Your task to perform on an android device: change the clock display to show seconds Image 0: 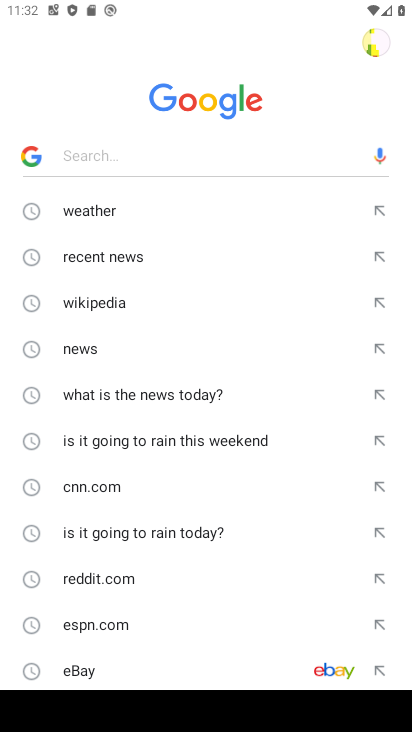
Step 0: press back button
Your task to perform on an android device: change the clock display to show seconds Image 1: 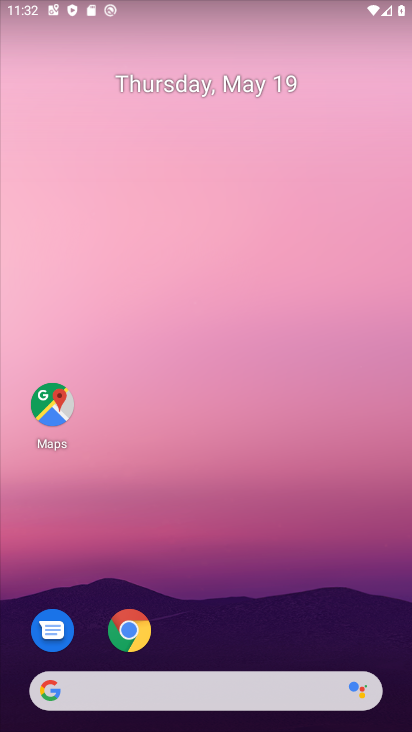
Step 1: drag from (279, 636) to (187, 157)
Your task to perform on an android device: change the clock display to show seconds Image 2: 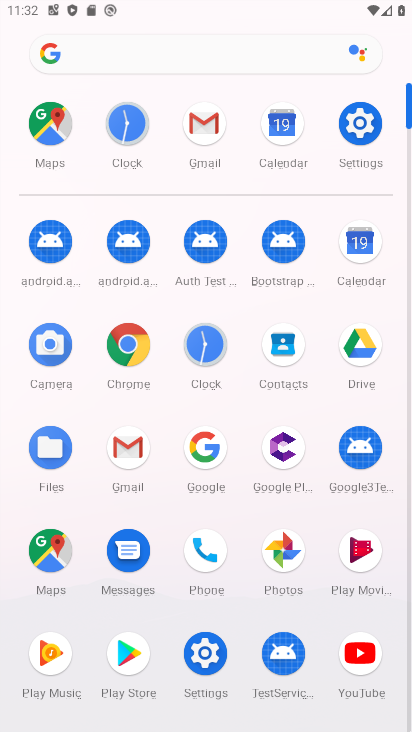
Step 2: click (206, 344)
Your task to perform on an android device: change the clock display to show seconds Image 3: 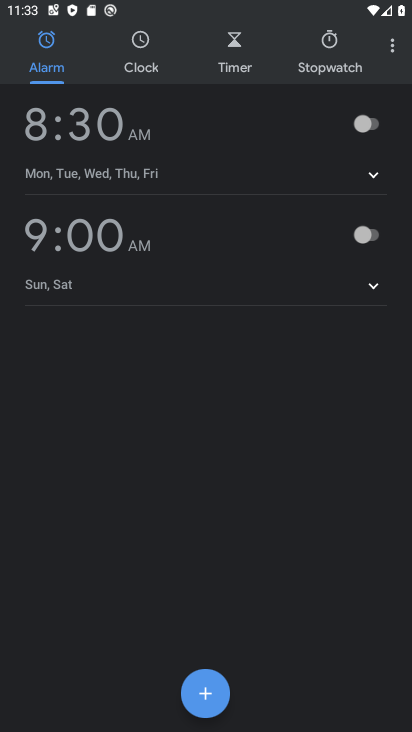
Step 3: click (392, 46)
Your task to perform on an android device: change the clock display to show seconds Image 4: 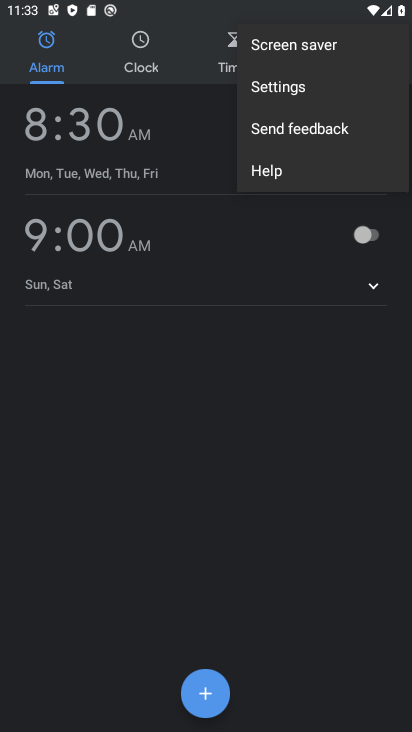
Step 4: click (283, 85)
Your task to perform on an android device: change the clock display to show seconds Image 5: 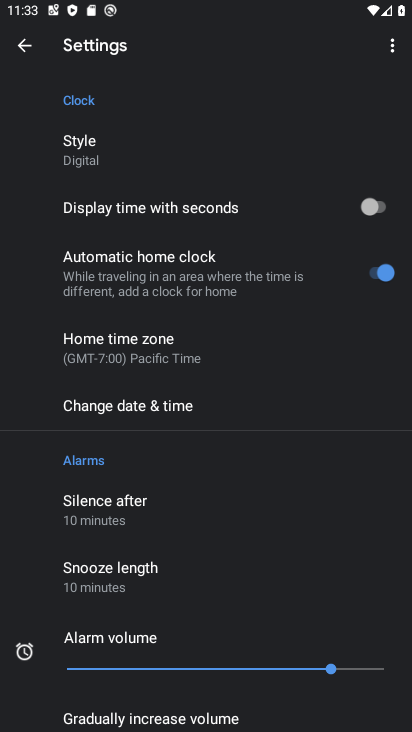
Step 5: click (371, 200)
Your task to perform on an android device: change the clock display to show seconds Image 6: 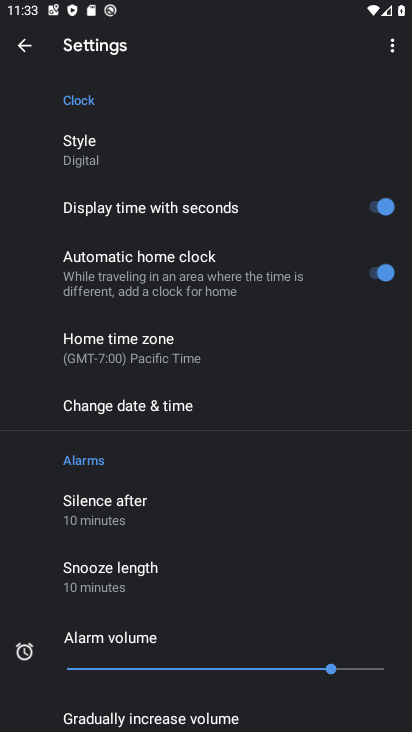
Step 6: task complete